Your task to perform on an android device: change alarm snooze length Image 0: 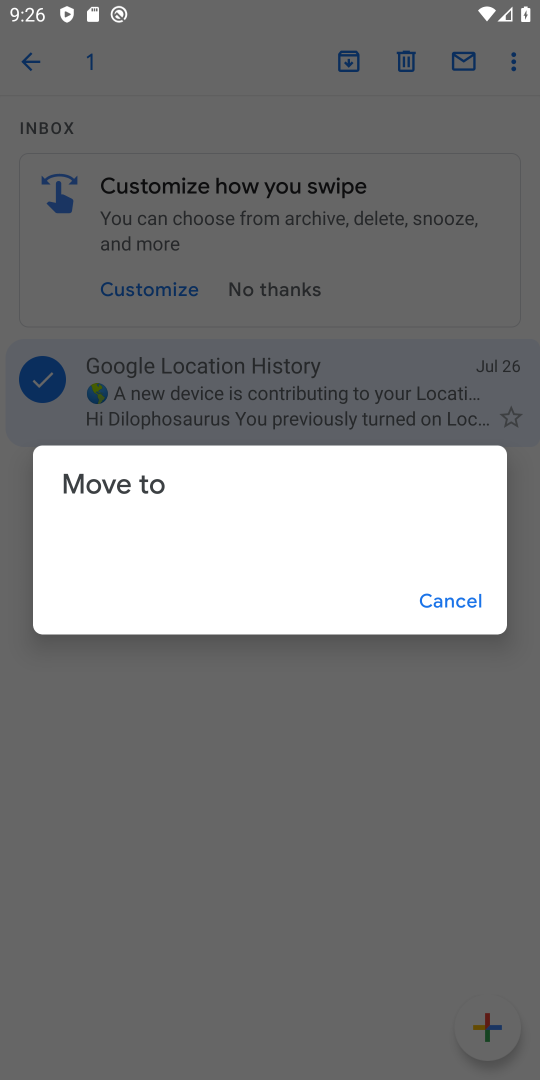
Step 0: press home button
Your task to perform on an android device: change alarm snooze length Image 1: 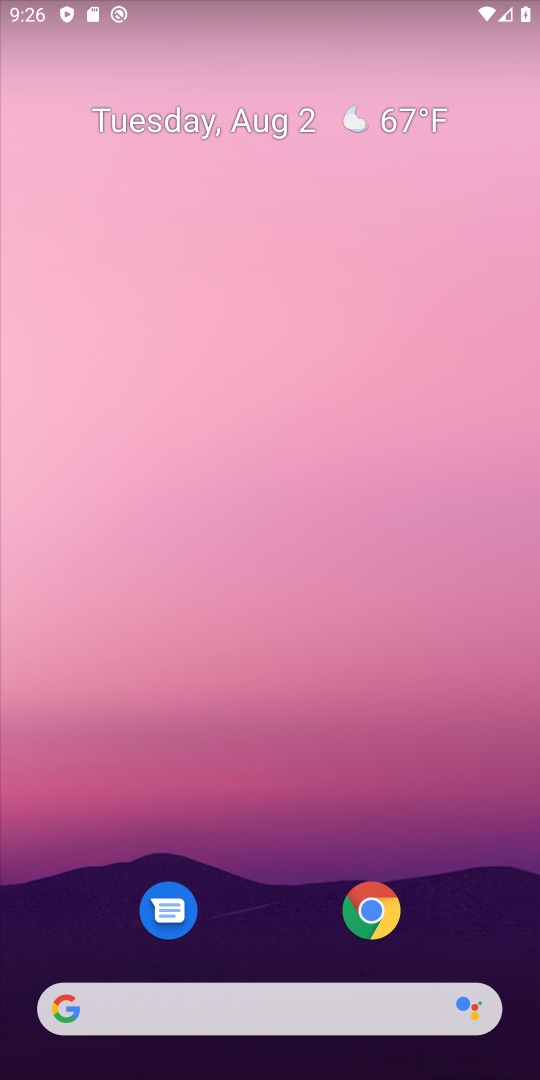
Step 1: drag from (261, 898) to (270, 361)
Your task to perform on an android device: change alarm snooze length Image 2: 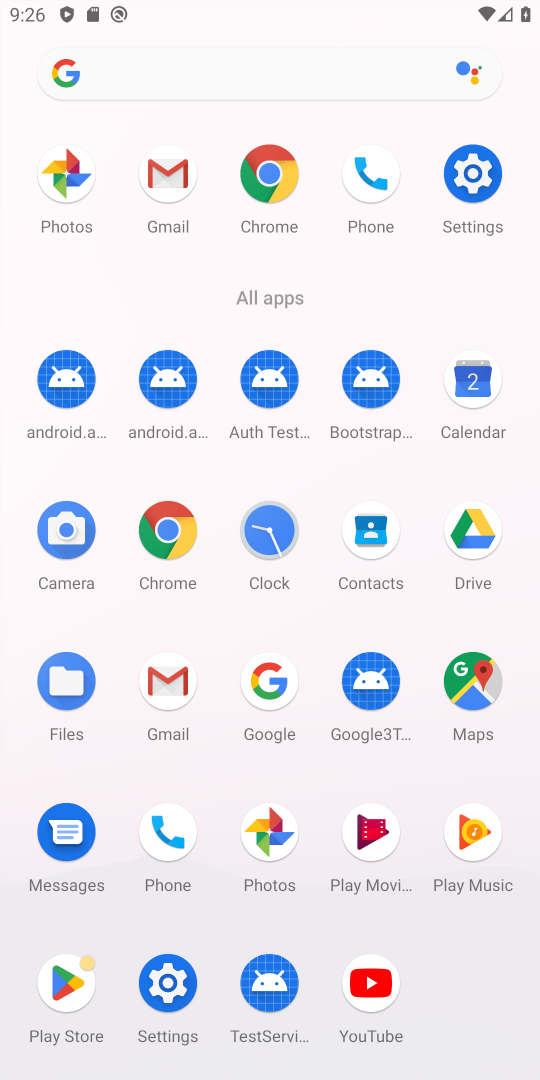
Step 2: click (269, 520)
Your task to perform on an android device: change alarm snooze length Image 3: 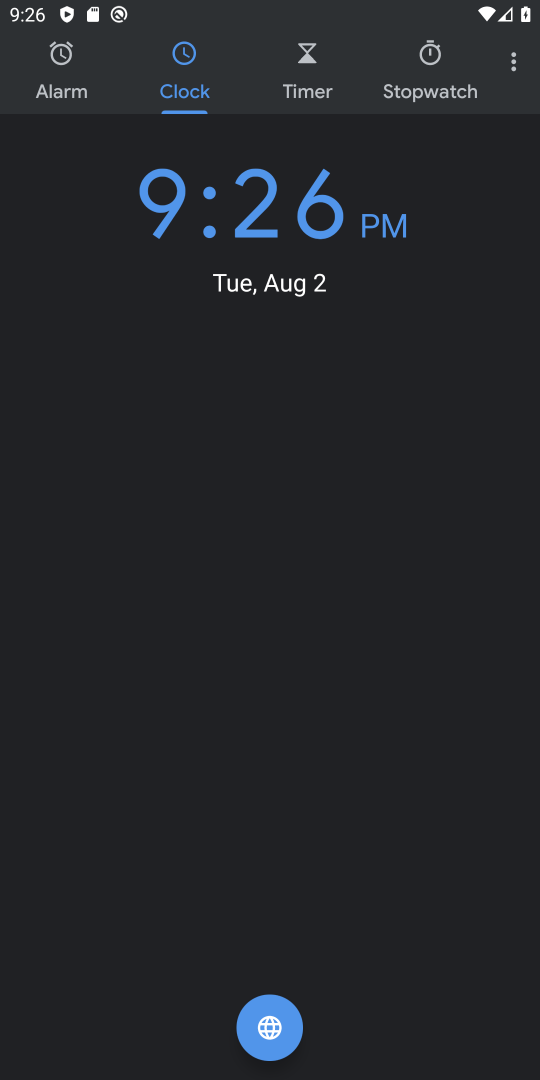
Step 3: click (515, 72)
Your task to perform on an android device: change alarm snooze length Image 4: 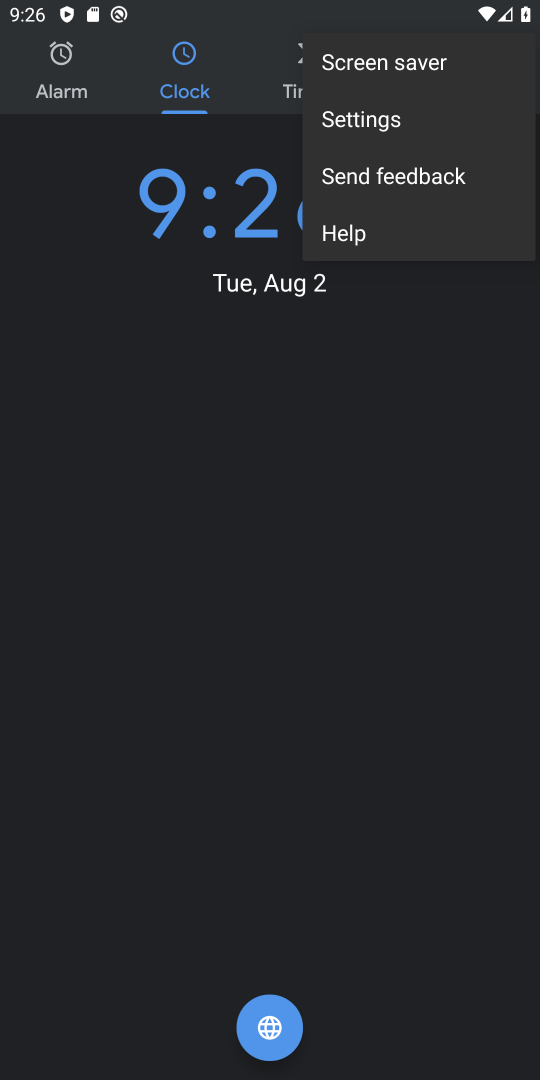
Step 4: click (388, 124)
Your task to perform on an android device: change alarm snooze length Image 5: 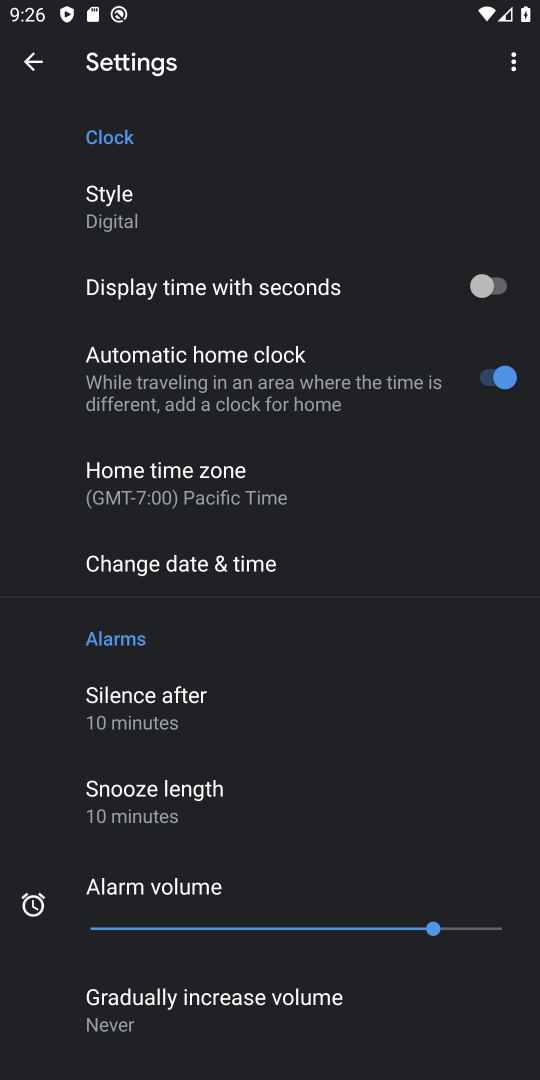
Step 5: click (180, 805)
Your task to perform on an android device: change alarm snooze length Image 6: 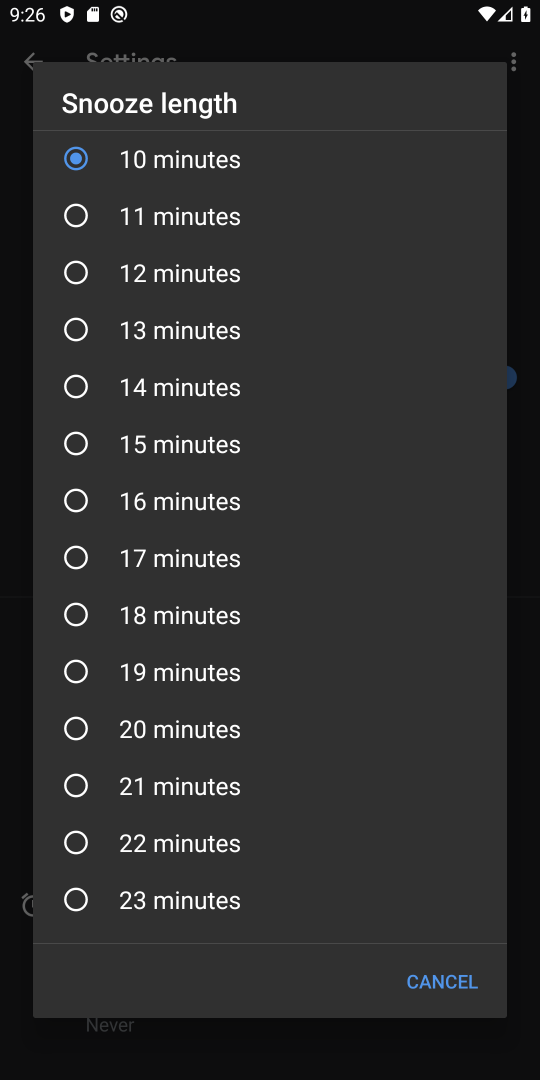
Step 6: click (108, 895)
Your task to perform on an android device: change alarm snooze length Image 7: 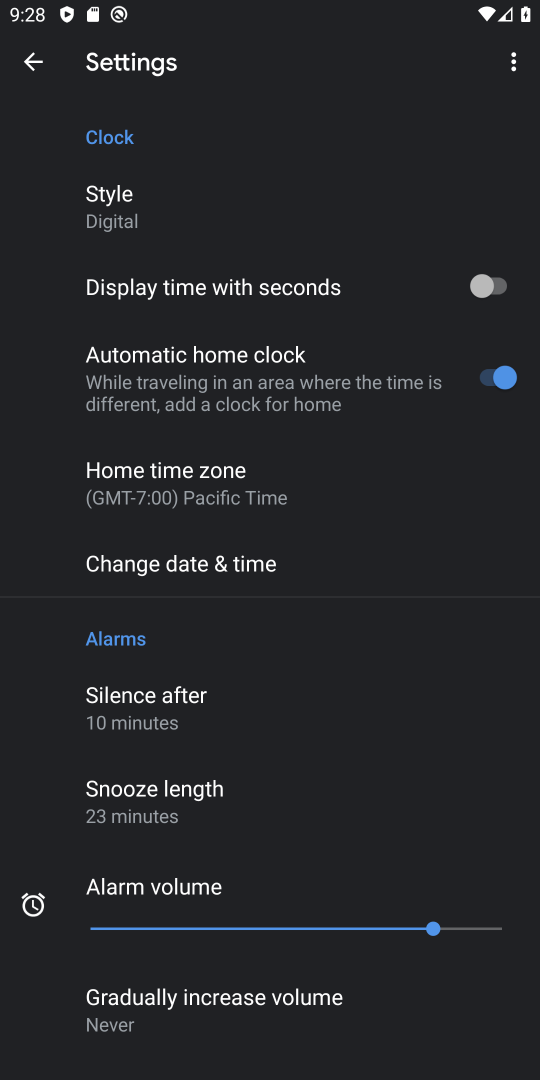
Step 7: task complete